Your task to perform on an android device: turn off smart reply in the gmail app Image 0: 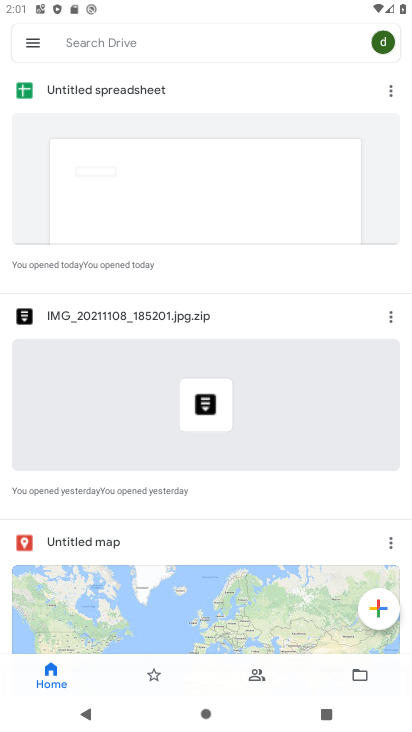
Step 0: press home button
Your task to perform on an android device: turn off smart reply in the gmail app Image 1: 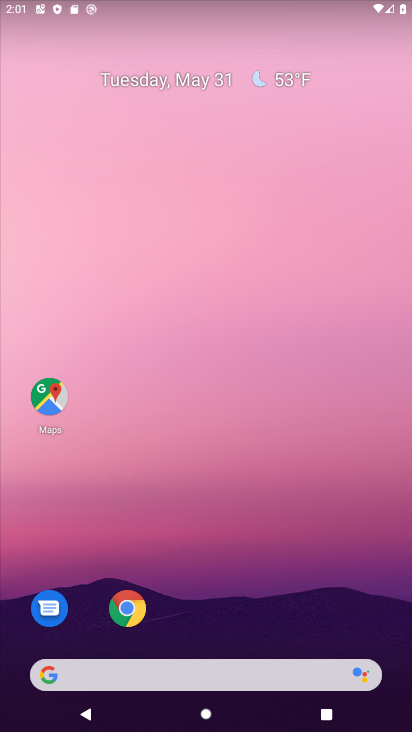
Step 1: drag from (250, 595) to (315, 94)
Your task to perform on an android device: turn off smart reply in the gmail app Image 2: 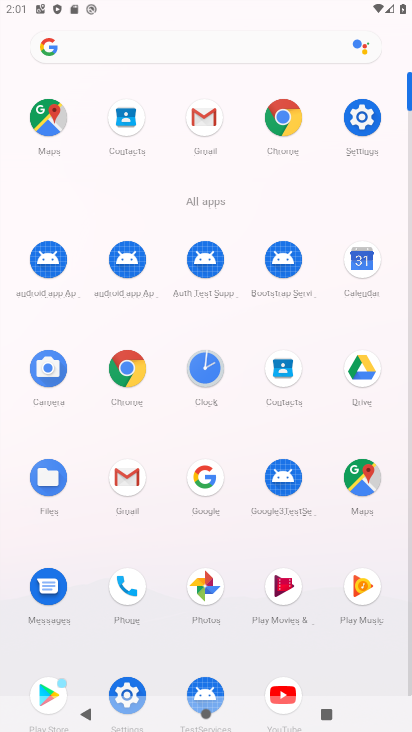
Step 2: click (199, 120)
Your task to perform on an android device: turn off smart reply in the gmail app Image 3: 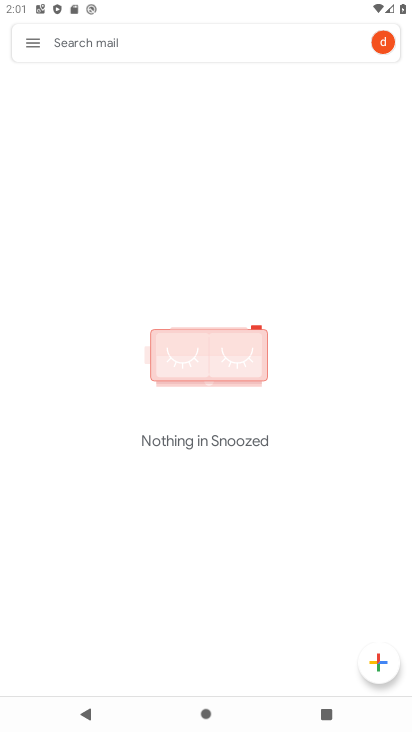
Step 3: click (28, 41)
Your task to perform on an android device: turn off smart reply in the gmail app Image 4: 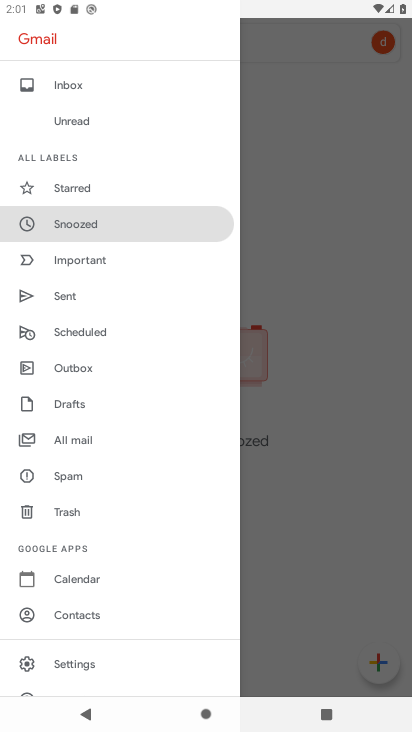
Step 4: click (75, 665)
Your task to perform on an android device: turn off smart reply in the gmail app Image 5: 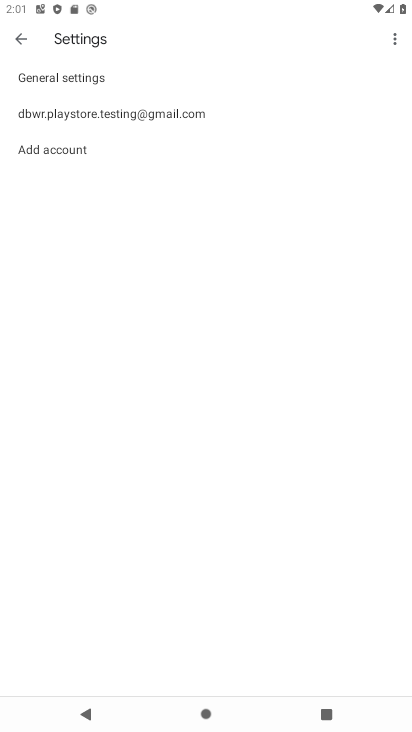
Step 5: click (79, 119)
Your task to perform on an android device: turn off smart reply in the gmail app Image 6: 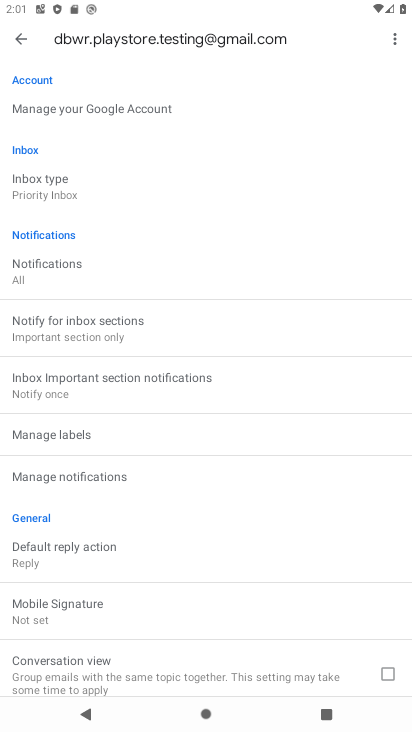
Step 6: drag from (223, 641) to (224, 337)
Your task to perform on an android device: turn off smart reply in the gmail app Image 7: 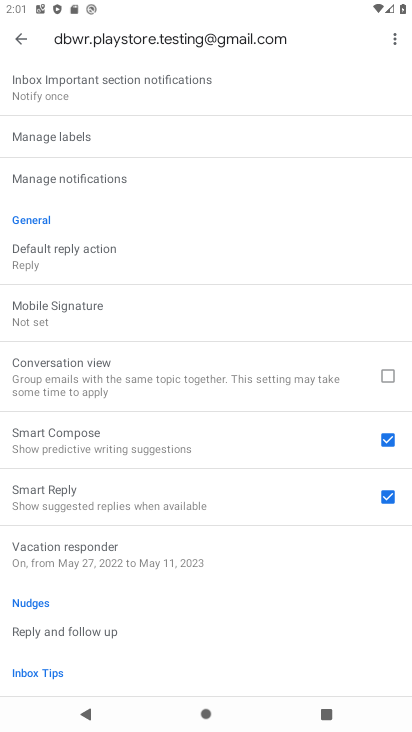
Step 7: click (382, 499)
Your task to perform on an android device: turn off smart reply in the gmail app Image 8: 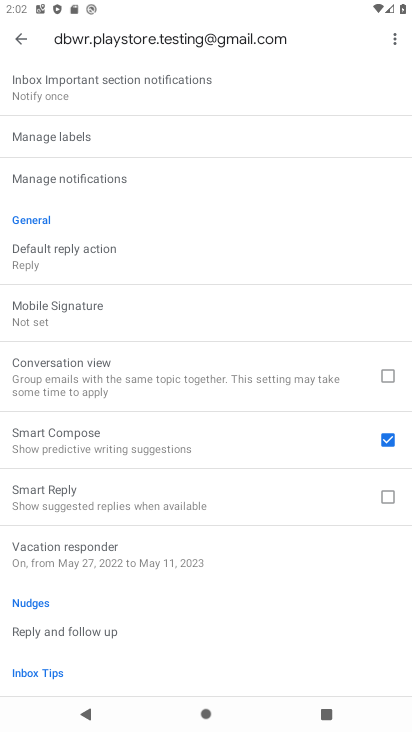
Step 8: task complete